Your task to perform on an android device: search for starred emails in the gmail app Image 0: 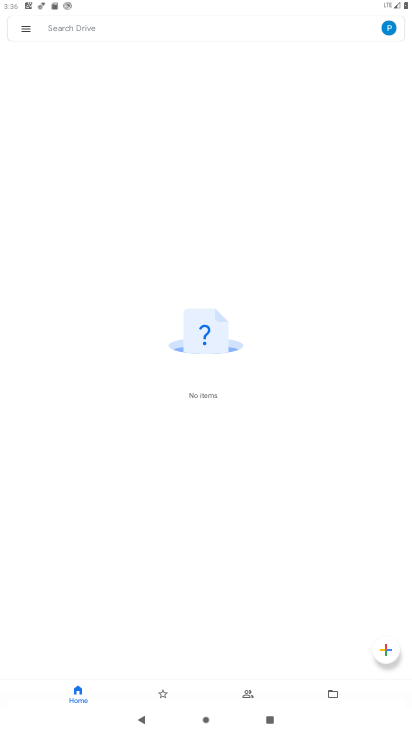
Step 0: press home button
Your task to perform on an android device: search for starred emails in the gmail app Image 1: 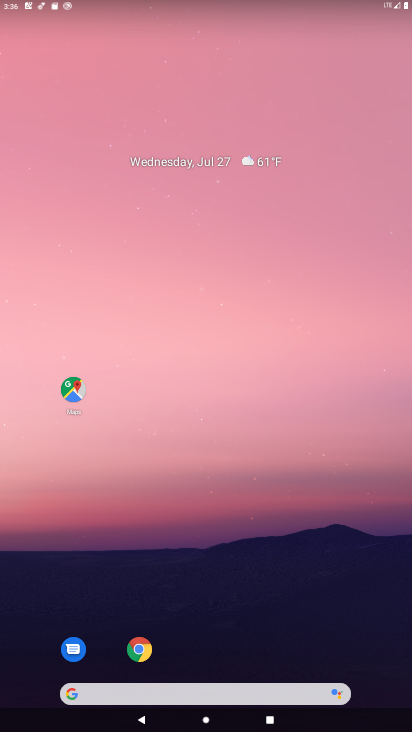
Step 1: drag from (193, 480) to (181, 83)
Your task to perform on an android device: search for starred emails in the gmail app Image 2: 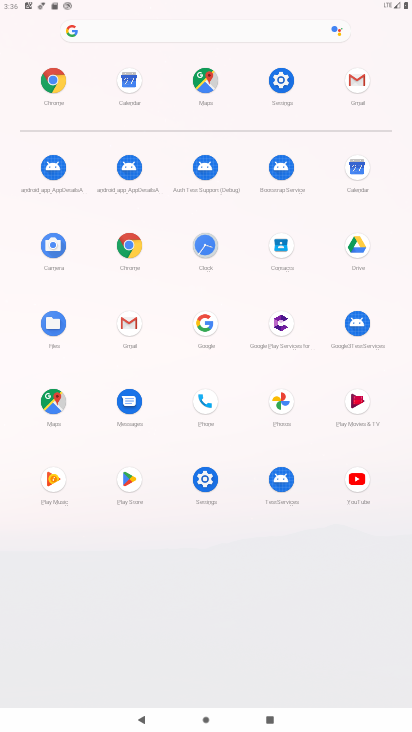
Step 2: click (363, 88)
Your task to perform on an android device: search for starred emails in the gmail app Image 3: 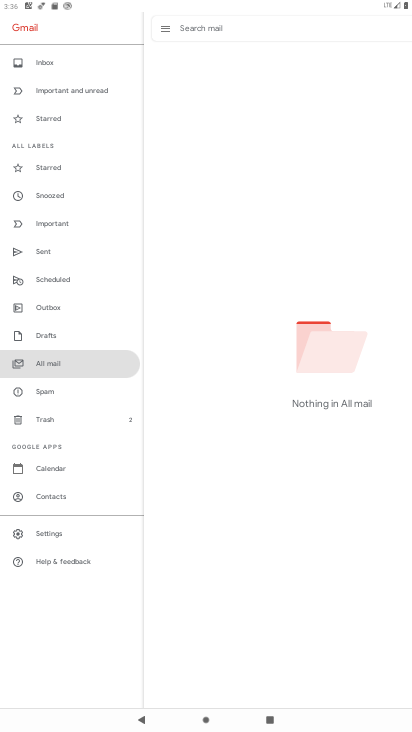
Step 3: click (57, 122)
Your task to perform on an android device: search for starred emails in the gmail app Image 4: 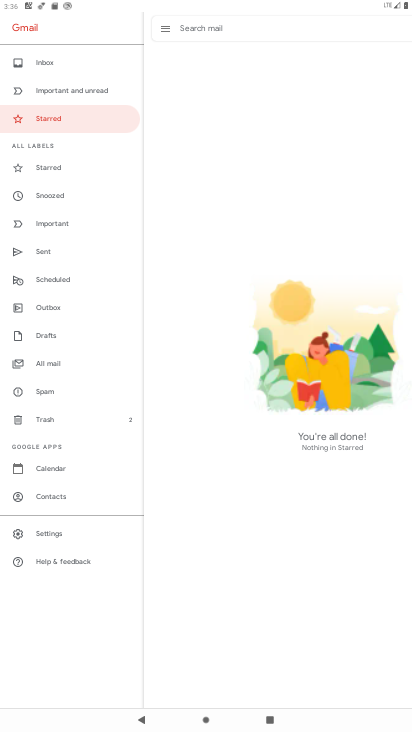
Step 4: task complete